Your task to perform on an android device: Open Google Chrome Image 0: 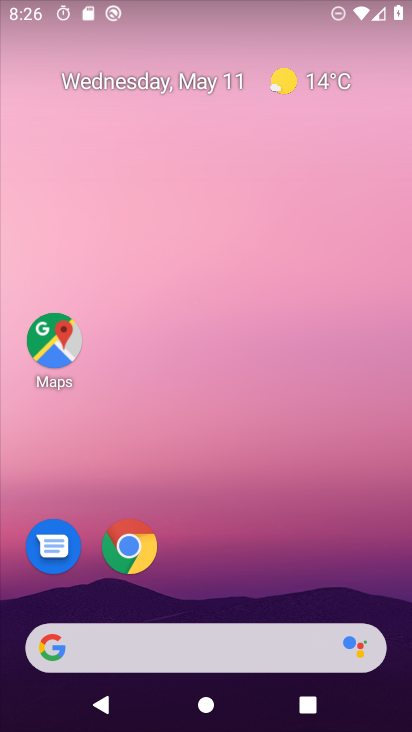
Step 0: click (107, 575)
Your task to perform on an android device: Open Google Chrome Image 1: 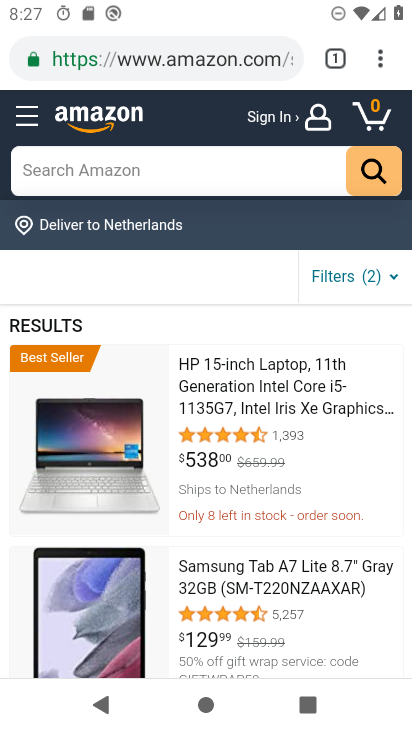
Step 1: task complete